Your task to perform on an android device: delete a single message in the gmail app Image 0: 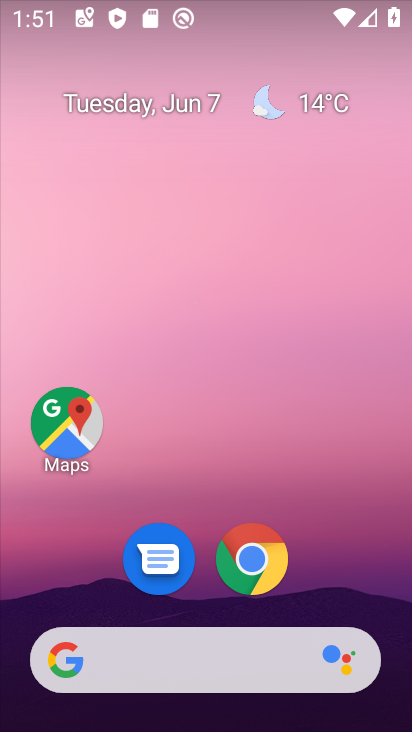
Step 0: drag from (347, 514) to (261, 69)
Your task to perform on an android device: delete a single message in the gmail app Image 1: 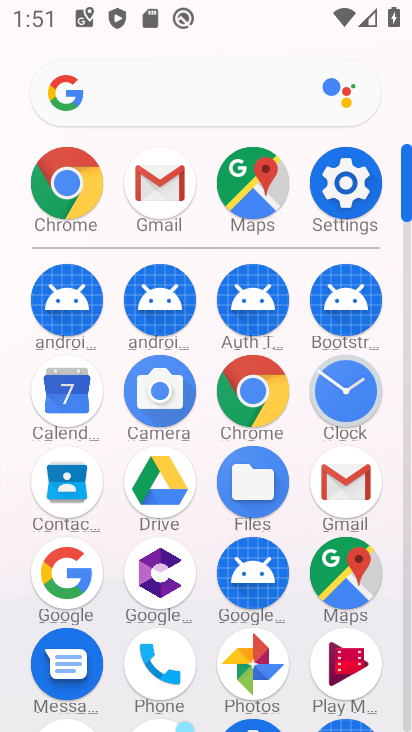
Step 1: drag from (1, 585) to (27, 304)
Your task to perform on an android device: delete a single message in the gmail app Image 2: 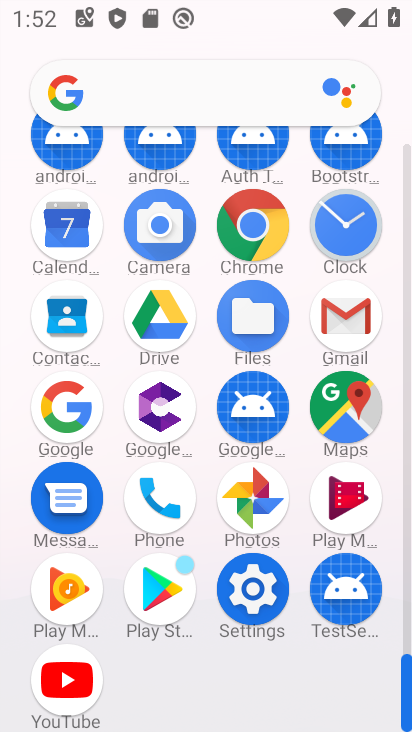
Step 2: click (346, 310)
Your task to perform on an android device: delete a single message in the gmail app Image 3: 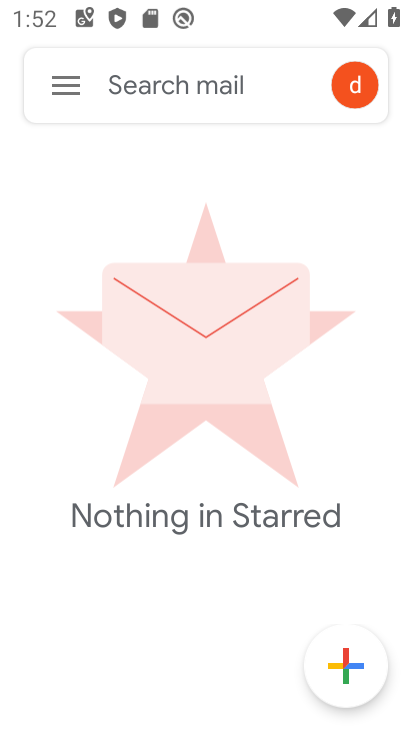
Step 3: click (70, 91)
Your task to perform on an android device: delete a single message in the gmail app Image 4: 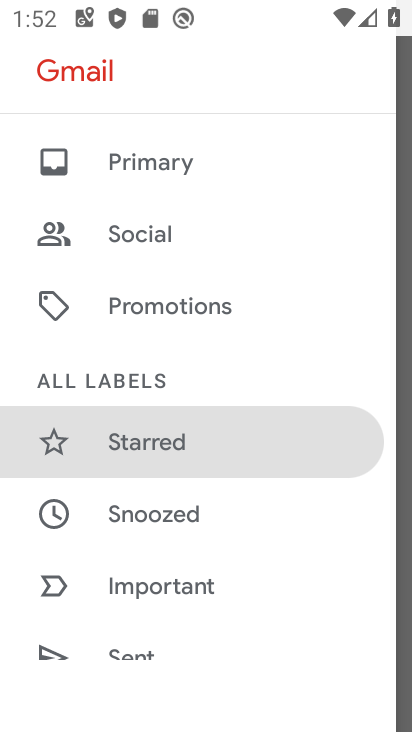
Step 4: drag from (245, 555) to (274, 198)
Your task to perform on an android device: delete a single message in the gmail app Image 5: 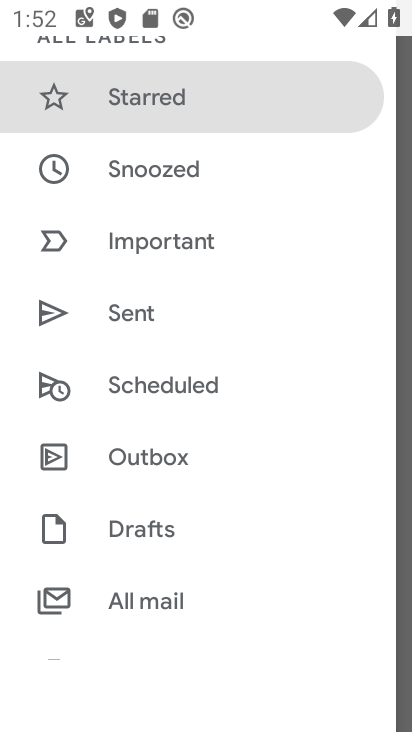
Step 5: click (148, 600)
Your task to perform on an android device: delete a single message in the gmail app Image 6: 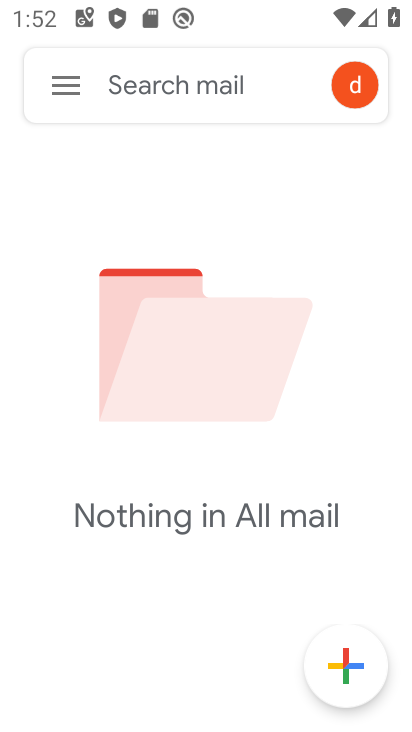
Step 6: click (74, 78)
Your task to perform on an android device: delete a single message in the gmail app Image 7: 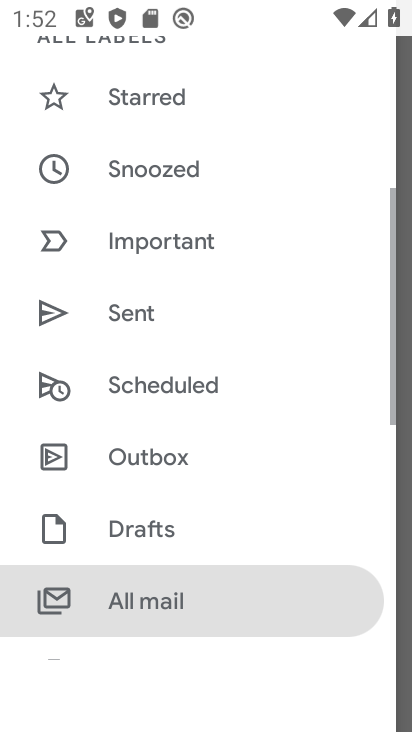
Step 7: drag from (224, 599) to (251, 191)
Your task to perform on an android device: delete a single message in the gmail app Image 8: 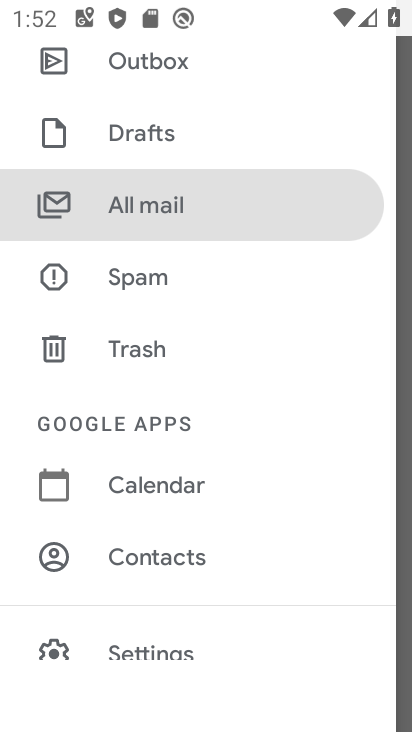
Step 8: drag from (238, 100) to (255, 615)
Your task to perform on an android device: delete a single message in the gmail app Image 9: 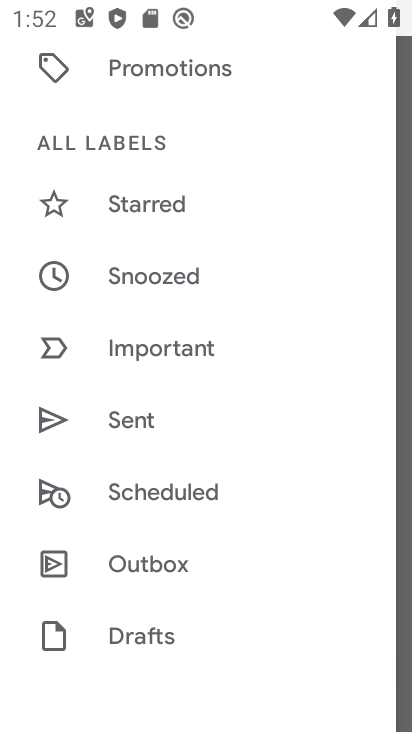
Step 9: click (174, 200)
Your task to perform on an android device: delete a single message in the gmail app Image 10: 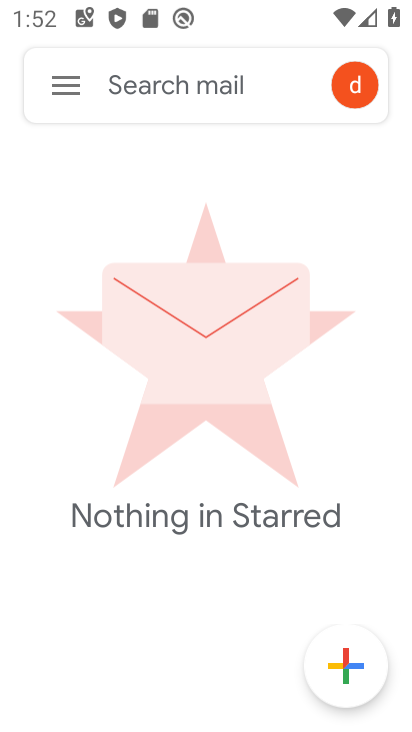
Step 10: click (61, 73)
Your task to perform on an android device: delete a single message in the gmail app Image 11: 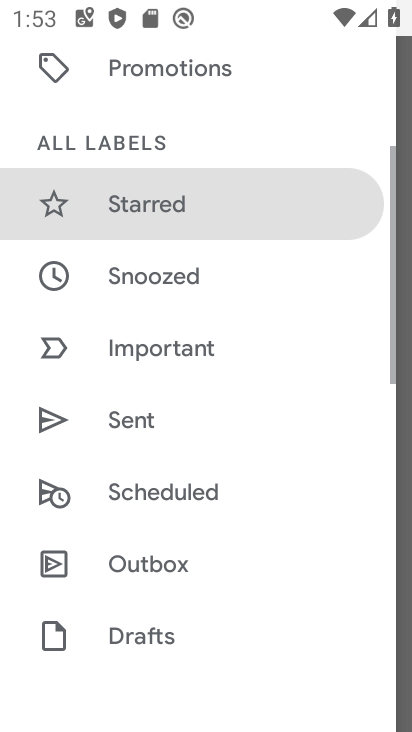
Step 11: drag from (253, 563) to (262, 202)
Your task to perform on an android device: delete a single message in the gmail app Image 12: 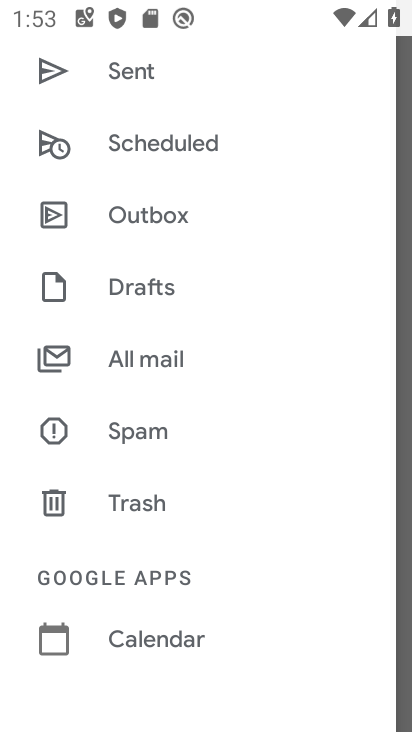
Step 12: drag from (230, 520) to (240, 559)
Your task to perform on an android device: delete a single message in the gmail app Image 13: 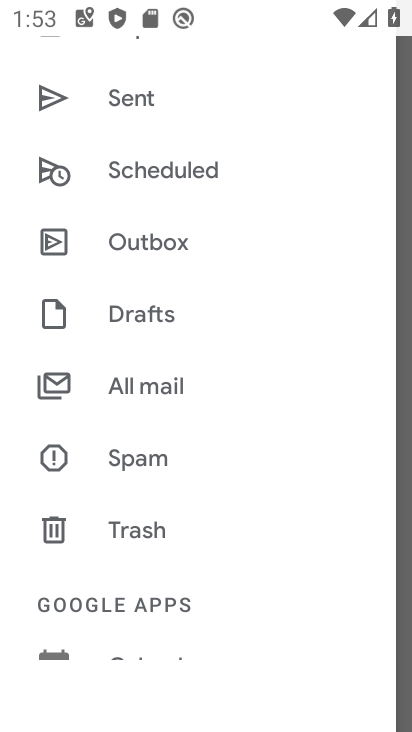
Step 13: click (166, 390)
Your task to perform on an android device: delete a single message in the gmail app Image 14: 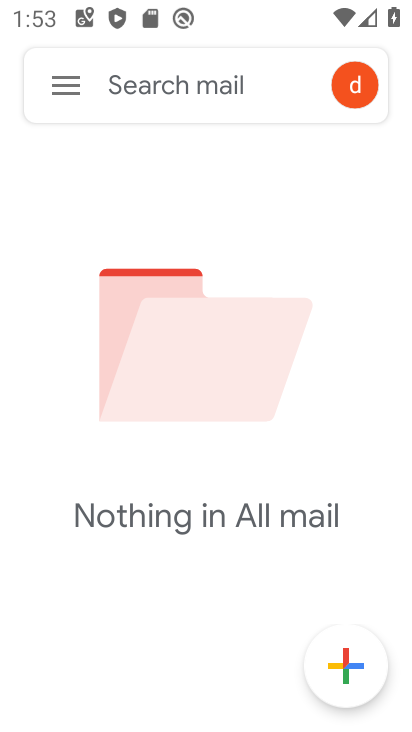
Step 14: task complete